Your task to perform on an android device: choose inbox layout in the gmail app Image 0: 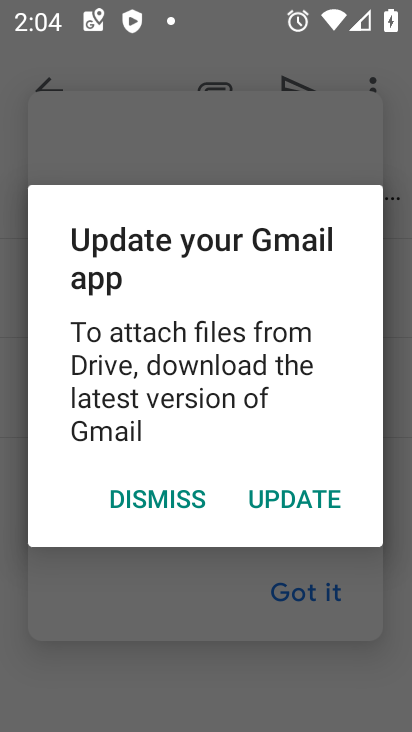
Step 0: press home button
Your task to perform on an android device: choose inbox layout in the gmail app Image 1: 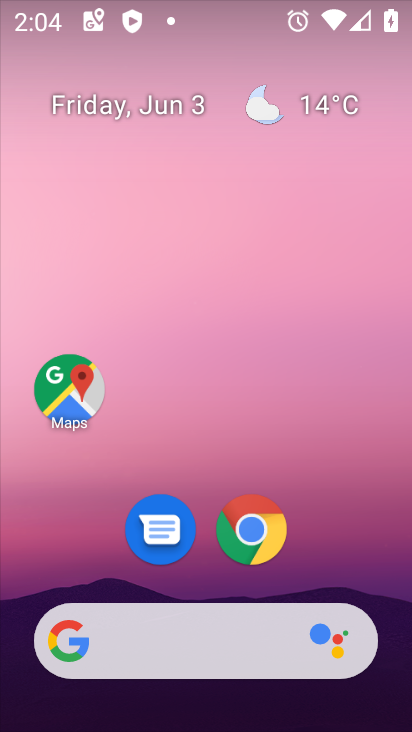
Step 1: drag from (386, 555) to (387, 194)
Your task to perform on an android device: choose inbox layout in the gmail app Image 2: 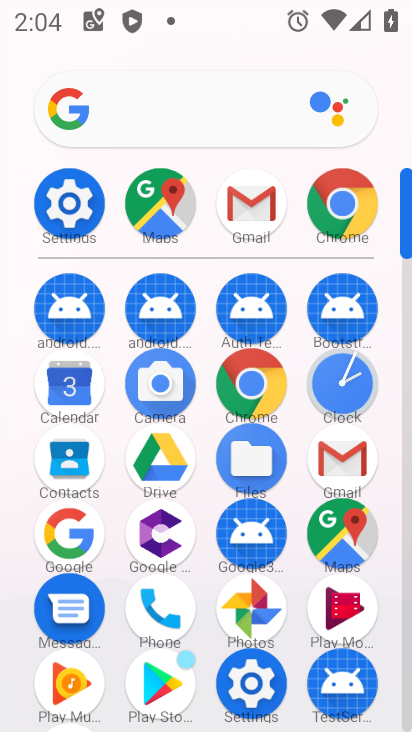
Step 2: click (350, 458)
Your task to perform on an android device: choose inbox layout in the gmail app Image 3: 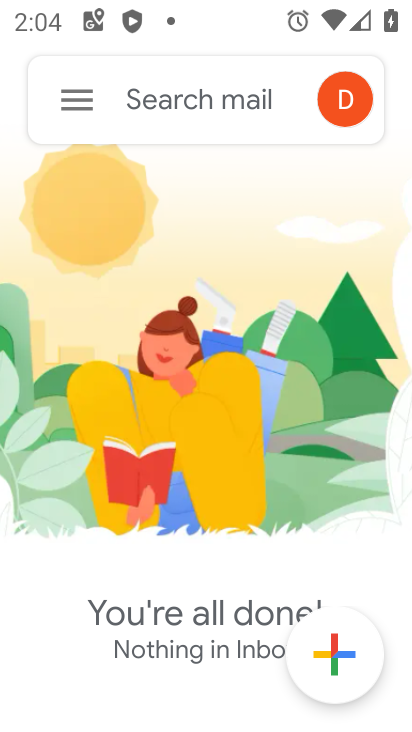
Step 3: click (84, 105)
Your task to perform on an android device: choose inbox layout in the gmail app Image 4: 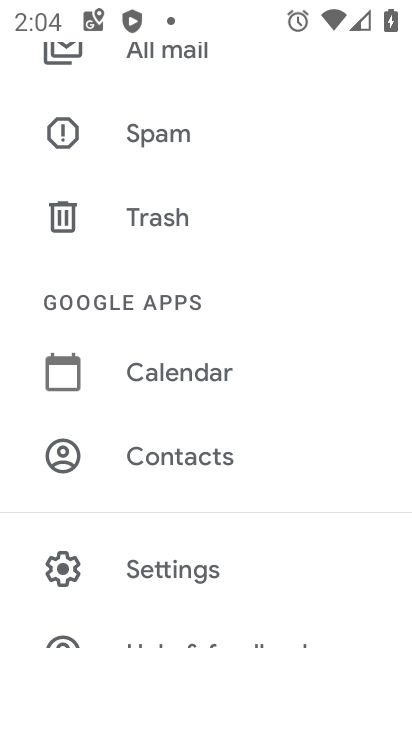
Step 4: drag from (339, 466) to (337, 277)
Your task to perform on an android device: choose inbox layout in the gmail app Image 5: 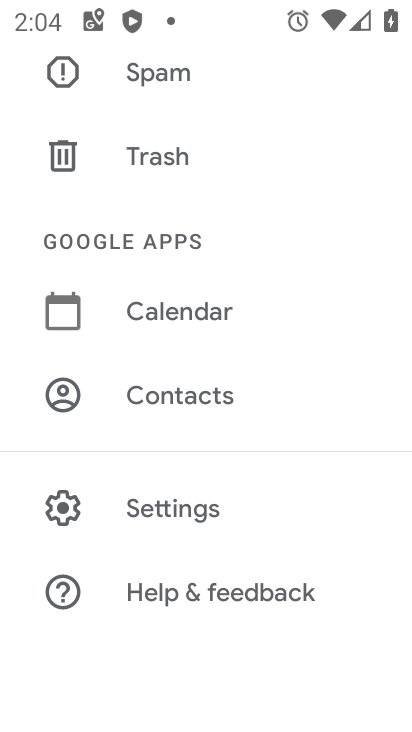
Step 5: drag from (352, 192) to (350, 326)
Your task to perform on an android device: choose inbox layout in the gmail app Image 6: 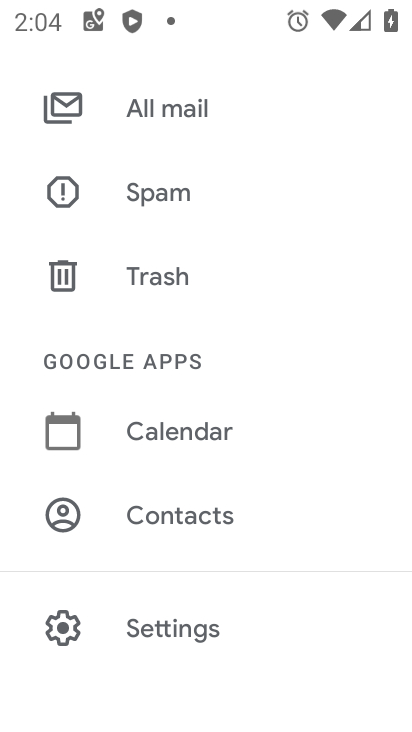
Step 6: drag from (348, 165) to (349, 325)
Your task to perform on an android device: choose inbox layout in the gmail app Image 7: 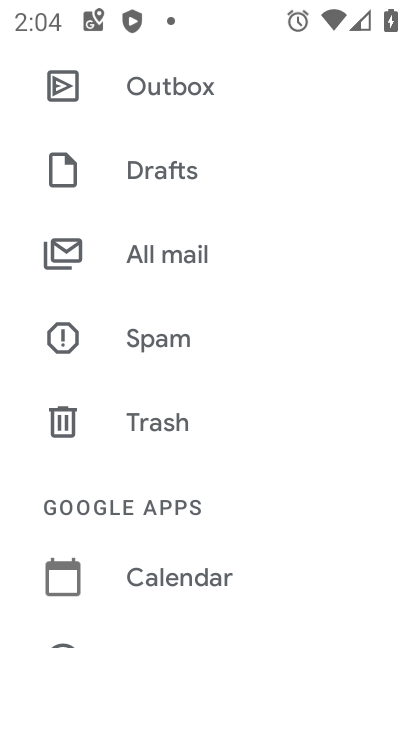
Step 7: drag from (349, 159) to (364, 349)
Your task to perform on an android device: choose inbox layout in the gmail app Image 8: 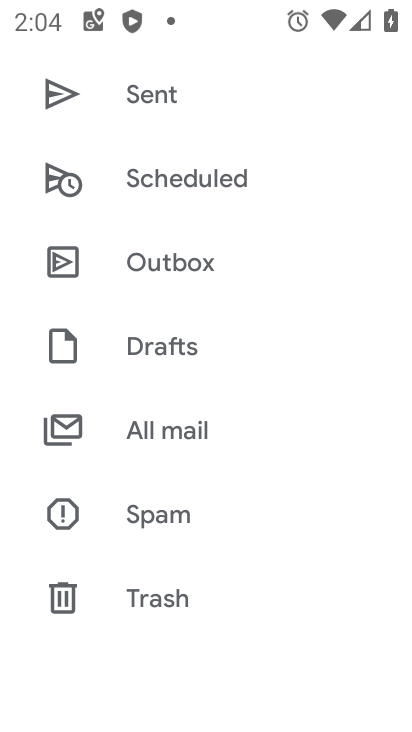
Step 8: drag from (341, 154) to (340, 336)
Your task to perform on an android device: choose inbox layout in the gmail app Image 9: 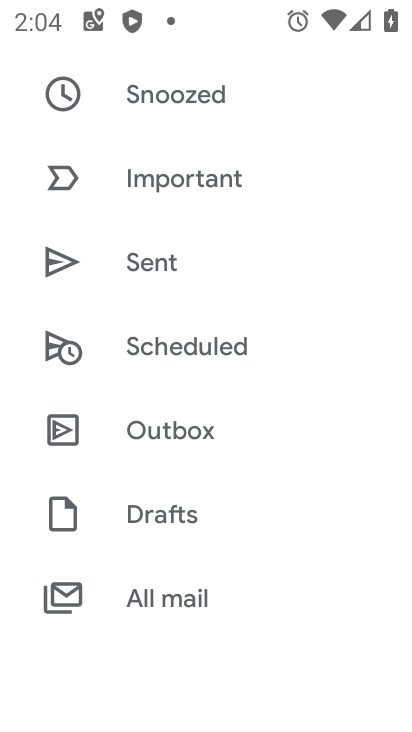
Step 9: drag from (335, 129) to (322, 298)
Your task to perform on an android device: choose inbox layout in the gmail app Image 10: 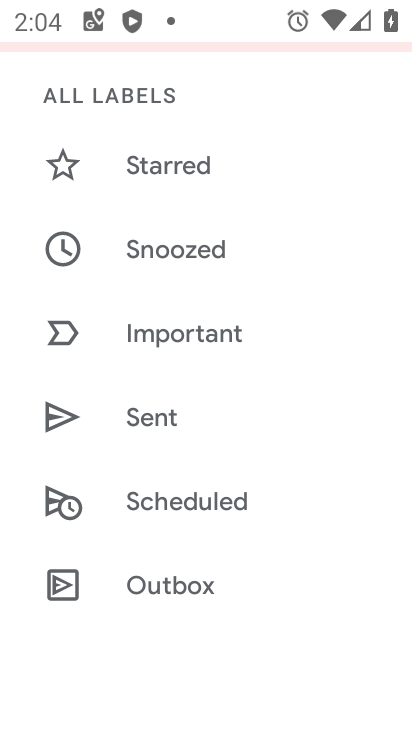
Step 10: drag from (317, 310) to (323, 191)
Your task to perform on an android device: choose inbox layout in the gmail app Image 11: 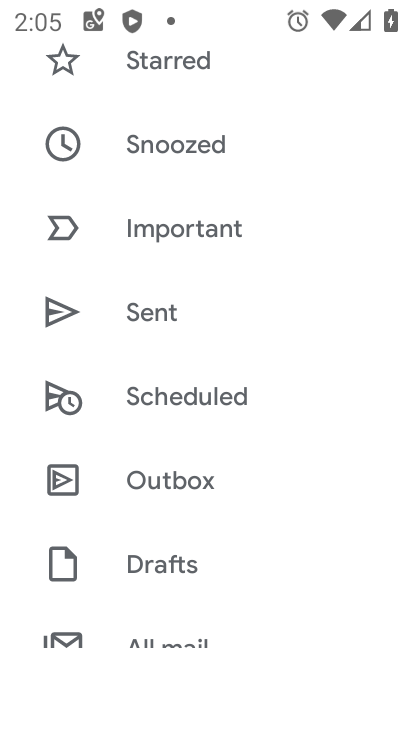
Step 11: drag from (344, 305) to (334, 153)
Your task to perform on an android device: choose inbox layout in the gmail app Image 12: 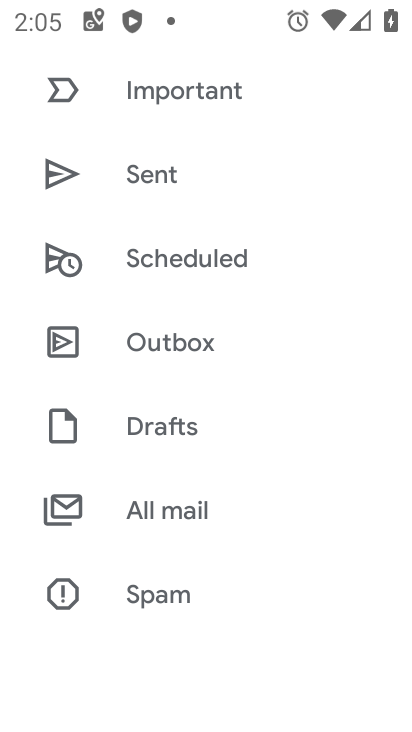
Step 12: drag from (327, 352) to (355, 194)
Your task to perform on an android device: choose inbox layout in the gmail app Image 13: 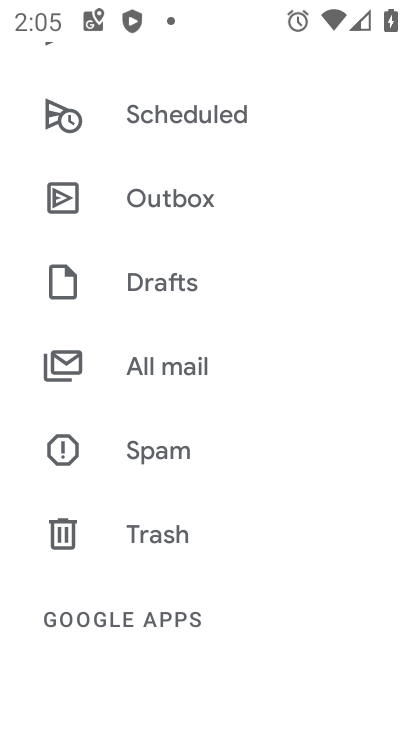
Step 13: drag from (338, 364) to (336, 179)
Your task to perform on an android device: choose inbox layout in the gmail app Image 14: 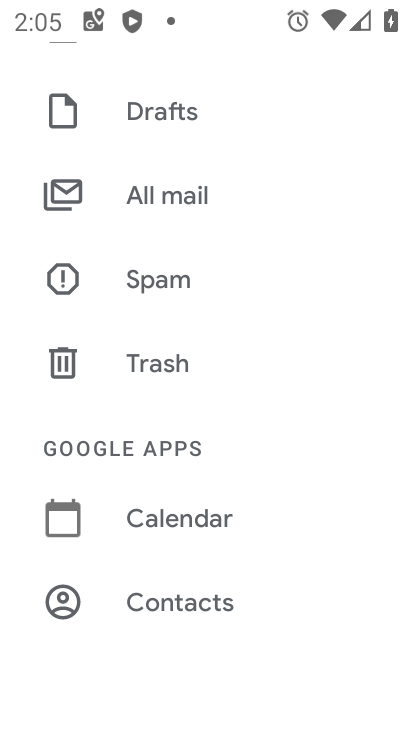
Step 14: drag from (298, 453) to (305, 203)
Your task to perform on an android device: choose inbox layout in the gmail app Image 15: 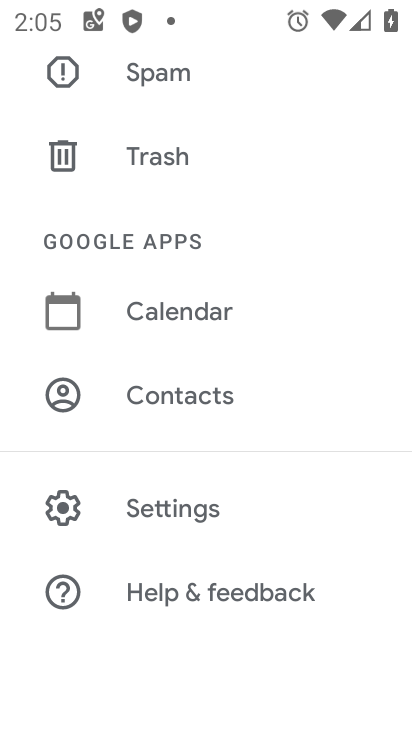
Step 15: click (259, 507)
Your task to perform on an android device: choose inbox layout in the gmail app Image 16: 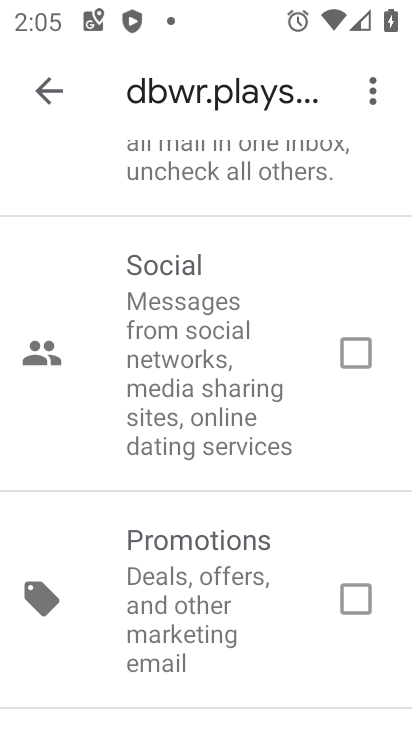
Step 16: click (45, 97)
Your task to perform on an android device: choose inbox layout in the gmail app Image 17: 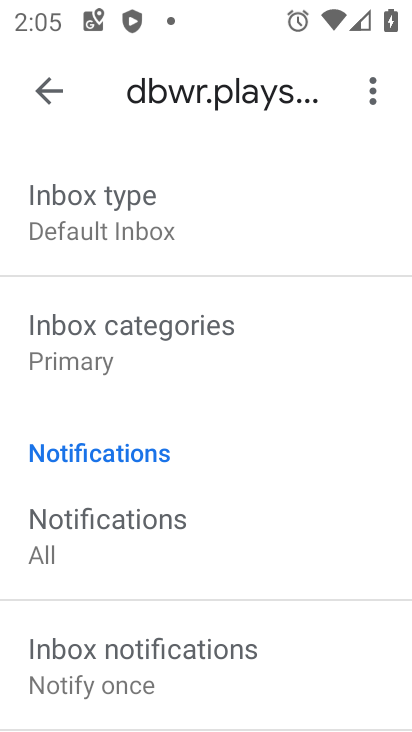
Step 17: click (134, 229)
Your task to perform on an android device: choose inbox layout in the gmail app Image 18: 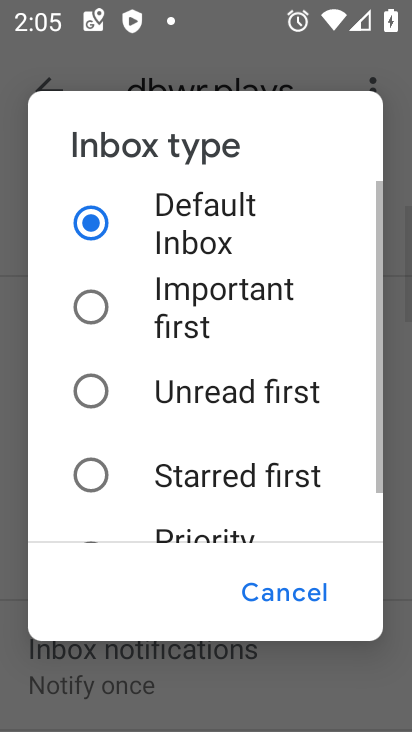
Step 18: click (246, 269)
Your task to perform on an android device: choose inbox layout in the gmail app Image 19: 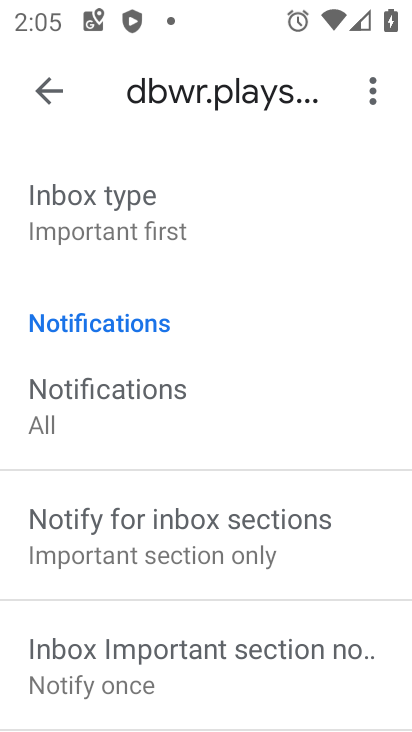
Step 19: task complete